Your task to perform on an android device: open chrome privacy settings Image 0: 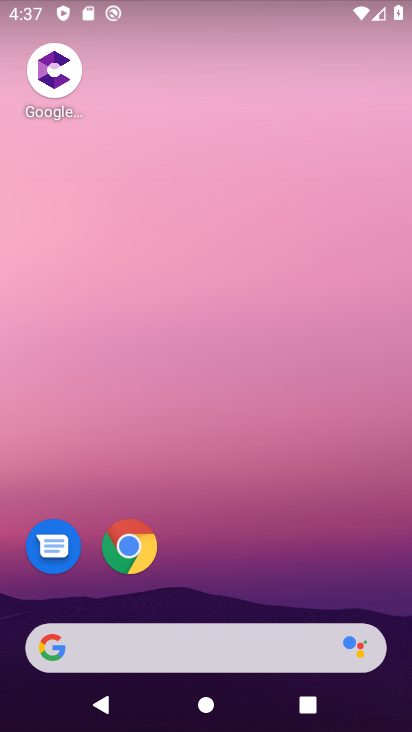
Step 0: drag from (200, 541) to (259, 2)
Your task to perform on an android device: open chrome privacy settings Image 1: 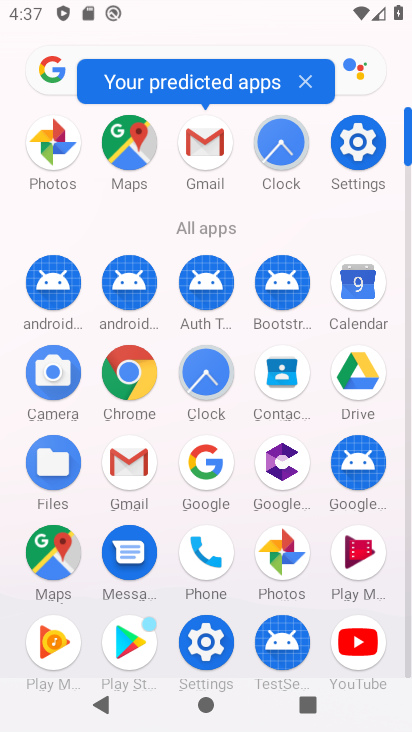
Step 1: click (366, 160)
Your task to perform on an android device: open chrome privacy settings Image 2: 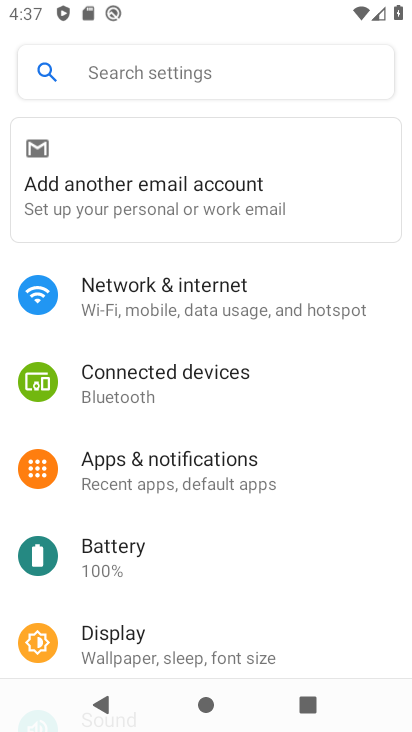
Step 2: drag from (235, 559) to (246, 244)
Your task to perform on an android device: open chrome privacy settings Image 3: 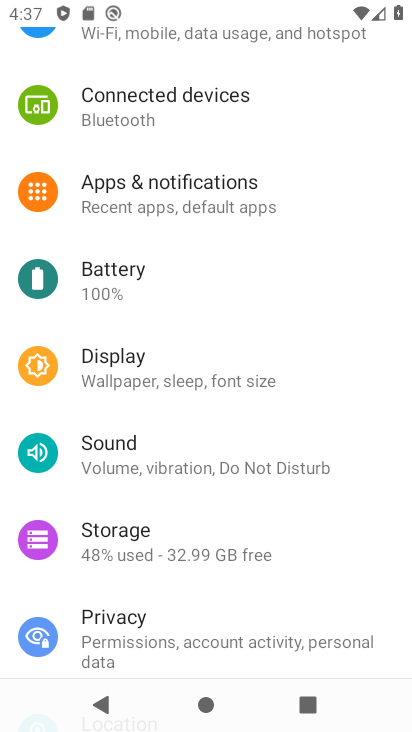
Step 3: click (139, 640)
Your task to perform on an android device: open chrome privacy settings Image 4: 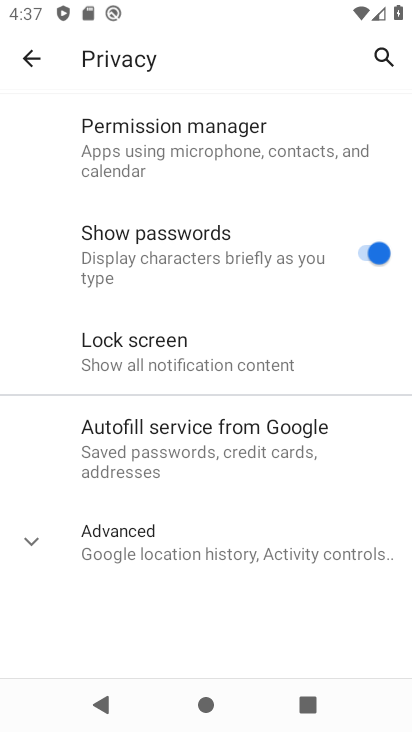
Step 4: task complete